Your task to perform on an android device: Clear the shopping cart on newegg.com. Image 0: 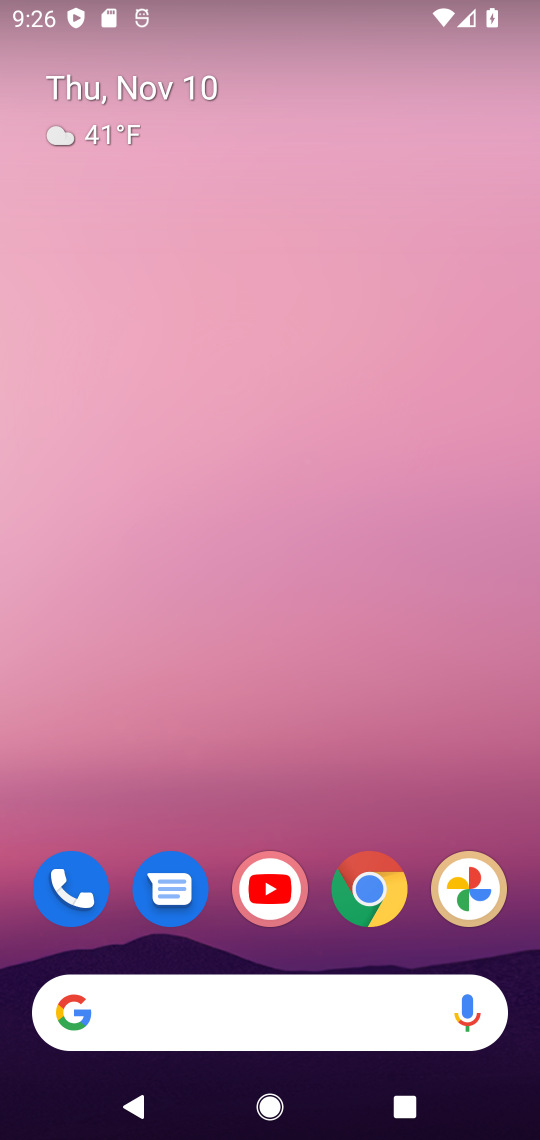
Step 0: click (367, 901)
Your task to perform on an android device: Clear the shopping cart on newegg.com. Image 1: 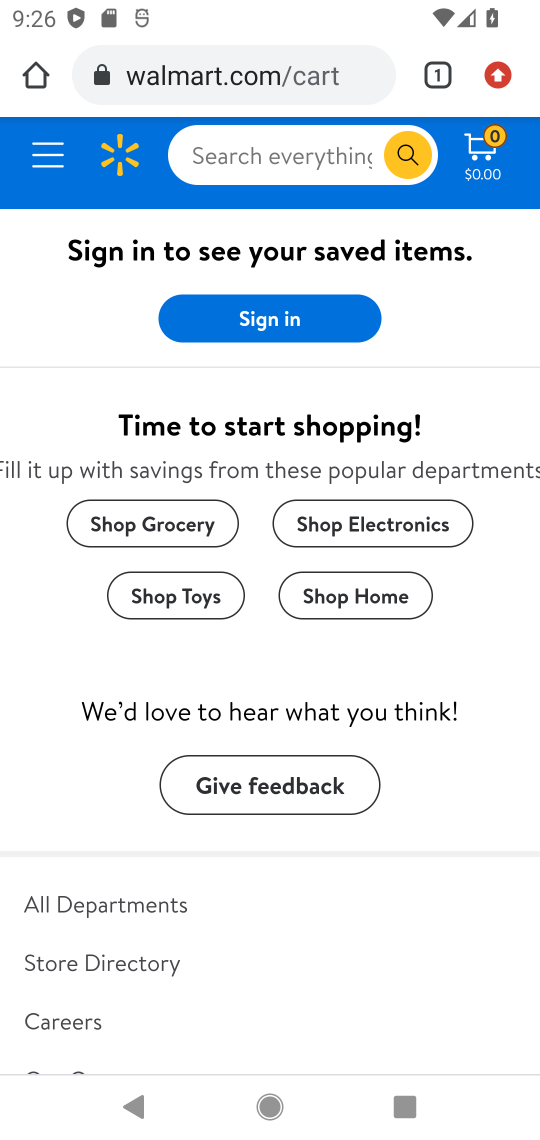
Step 1: click (309, 161)
Your task to perform on an android device: Clear the shopping cart on newegg.com. Image 2: 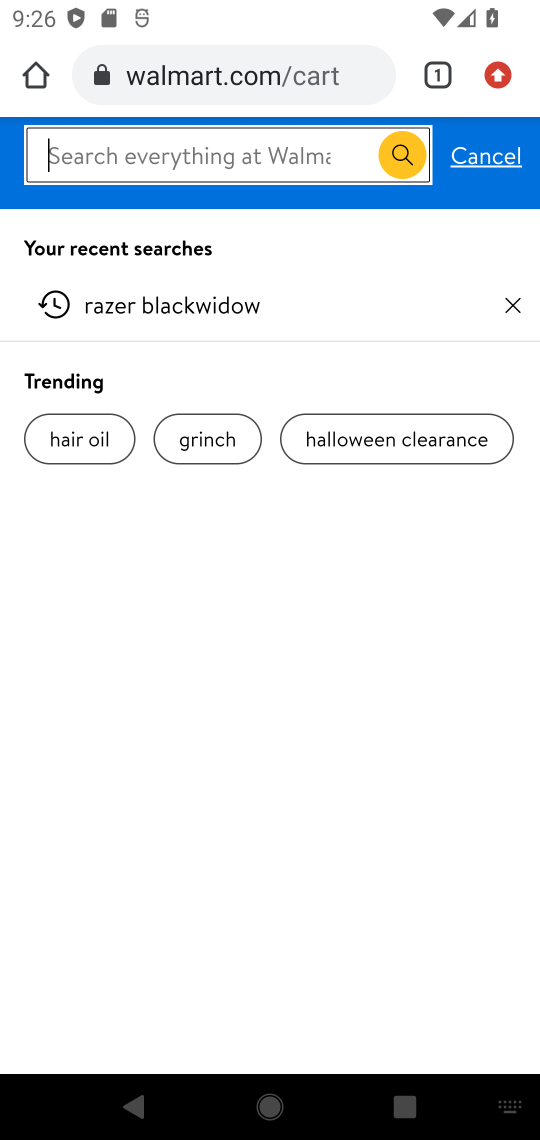
Step 2: click (276, 82)
Your task to perform on an android device: Clear the shopping cart on newegg.com. Image 3: 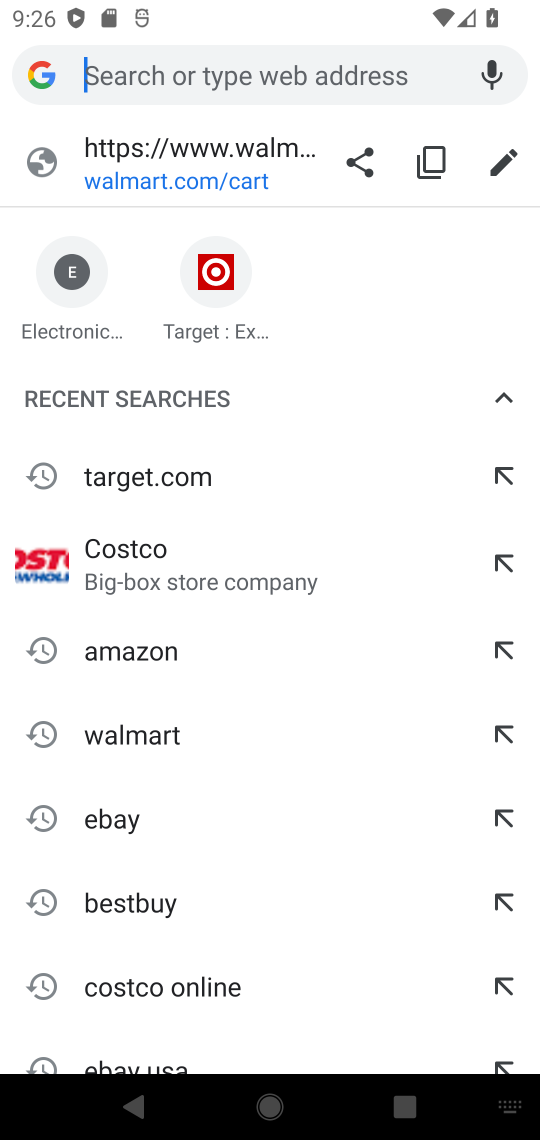
Step 3: drag from (202, 937) to (425, 438)
Your task to perform on an android device: Clear the shopping cart on newegg.com. Image 4: 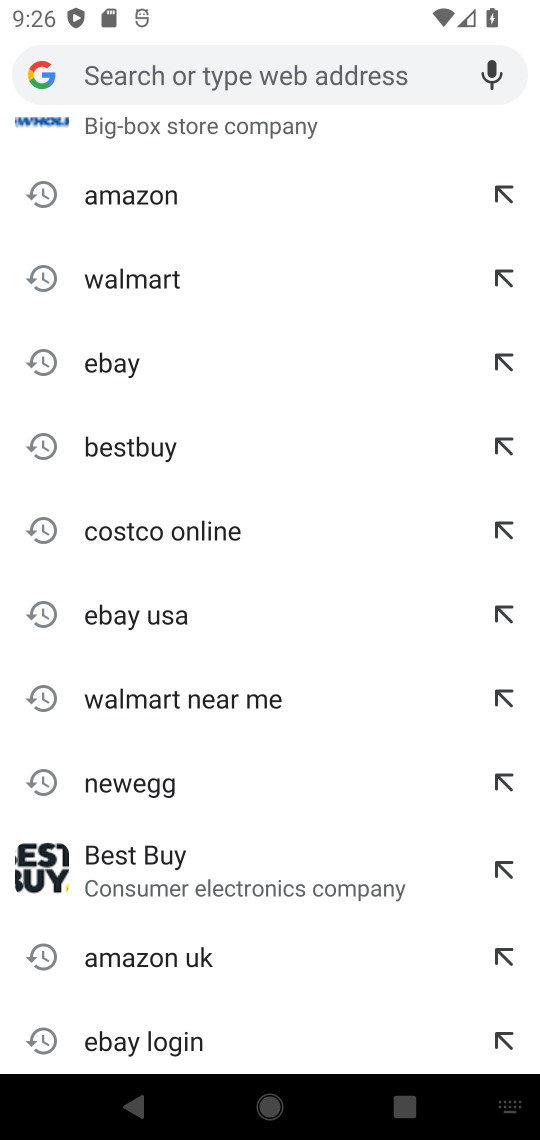
Step 4: click (114, 775)
Your task to perform on an android device: Clear the shopping cart on newegg.com. Image 5: 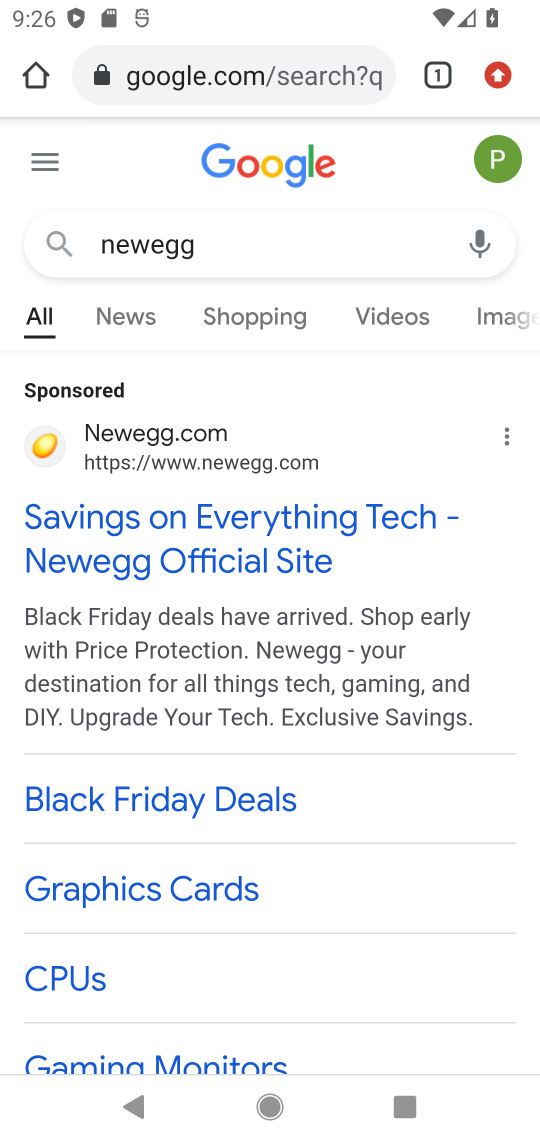
Step 5: drag from (212, 897) to (468, 234)
Your task to perform on an android device: Clear the shopping cart on newegg.com. Image 6: 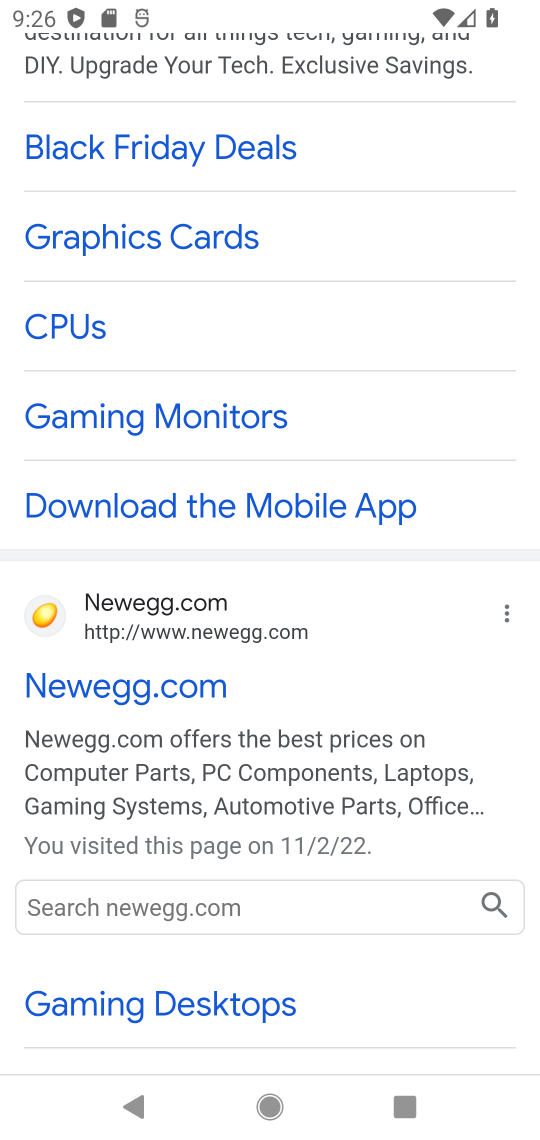
Step 6: click (125, 683)
Your task to perform on an android device: Clear the shopping cart on newegg.com. Image 7: 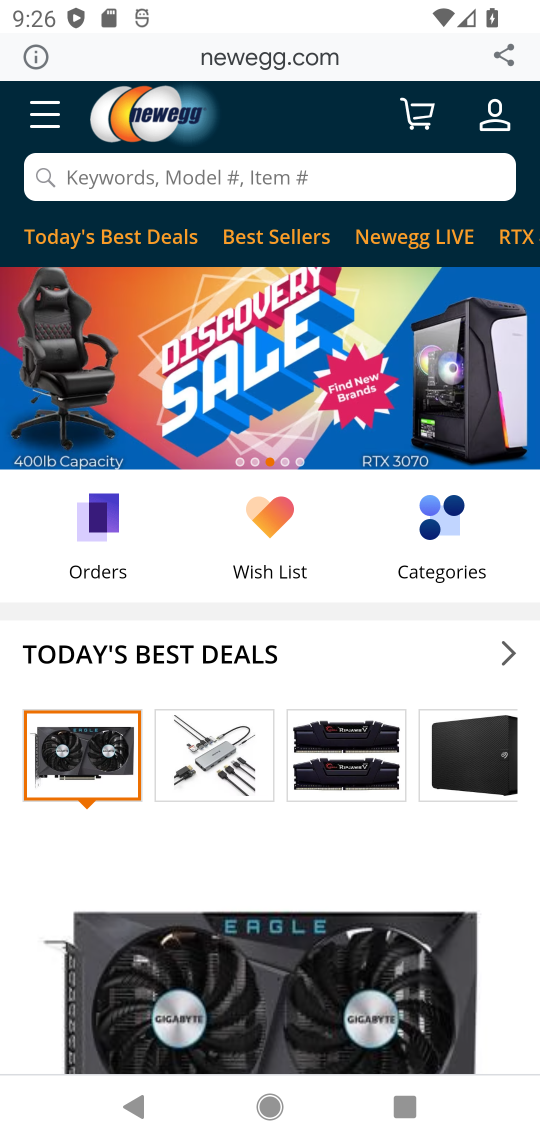
Step 7: click (425, 117)
Your task to perform on an android device: Clear the shopping cart on newegg.com. Image 8: 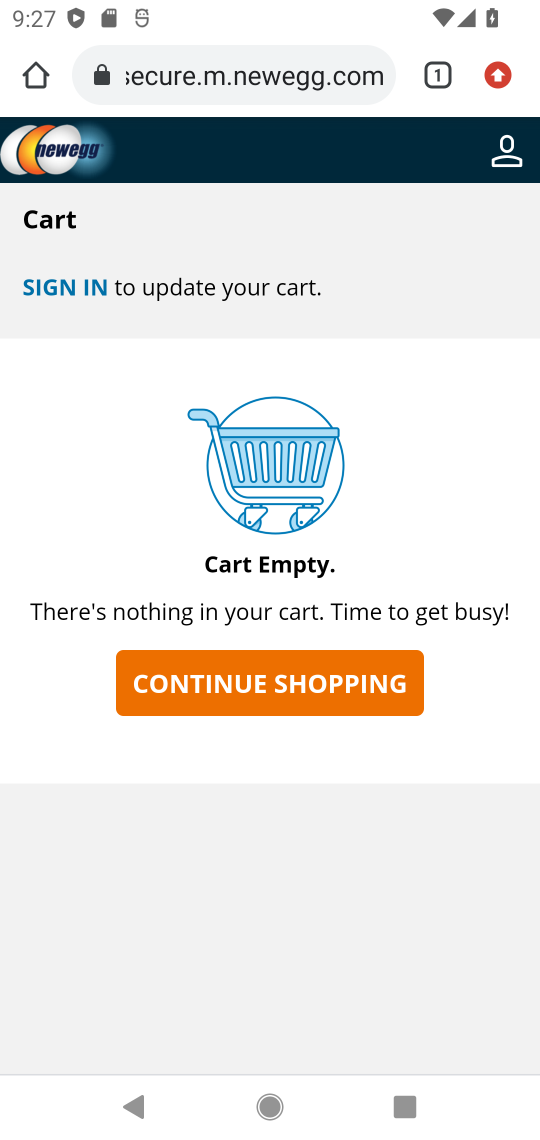
Step 8: task complete